Your task to perform on an android device: turn off location Image 0: 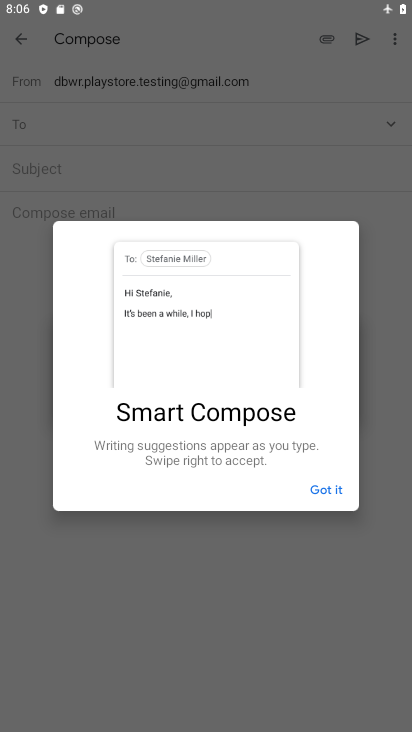
Step 0: press home button
Your task to perform on an android device: turn off location Image 1: 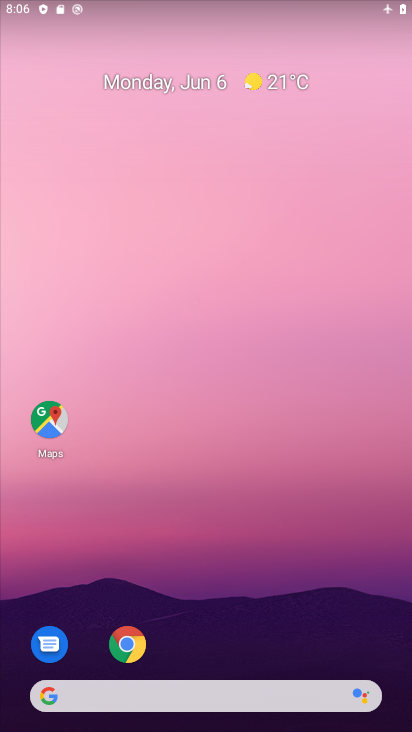
Step 1: drag from (225, 670) to (228, 58)
Your task to perform on an android device: turn off location Image 2: 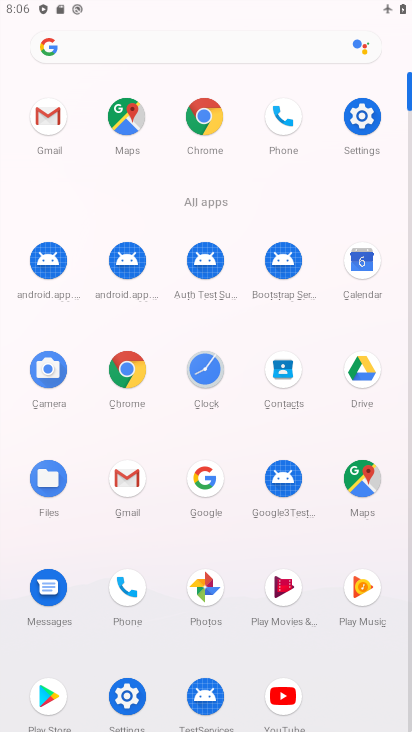
Step 2: click (365, 120)
Your task to perform on an android device: turn off location Image 3: 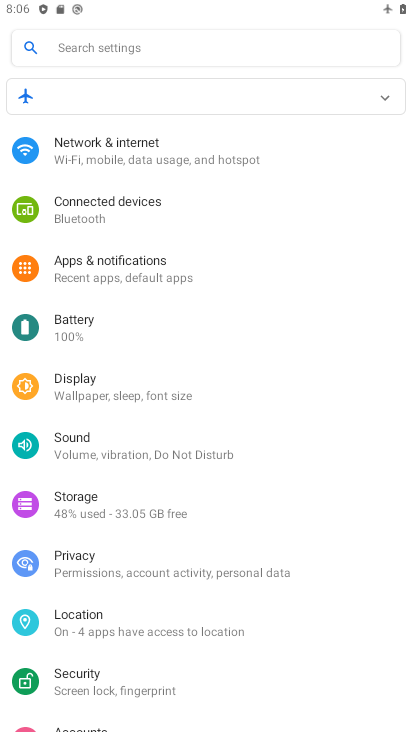
Step 3: click (86, 612)
Your task to perform on an android device: turn off location Image 4: 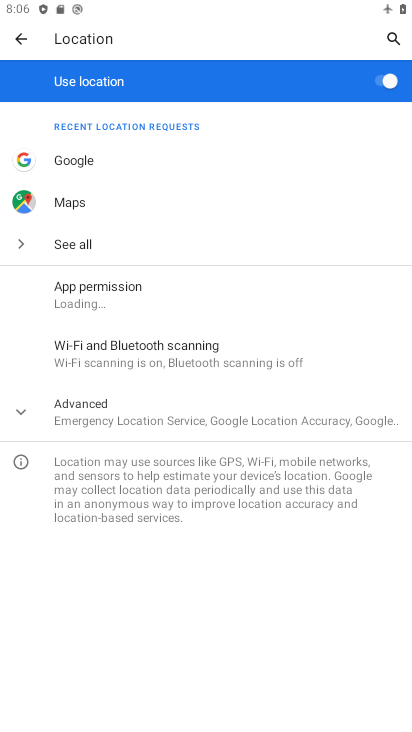
Step 4: click (382, 83)
Your task to perform on an android device: turn off location Image 5: 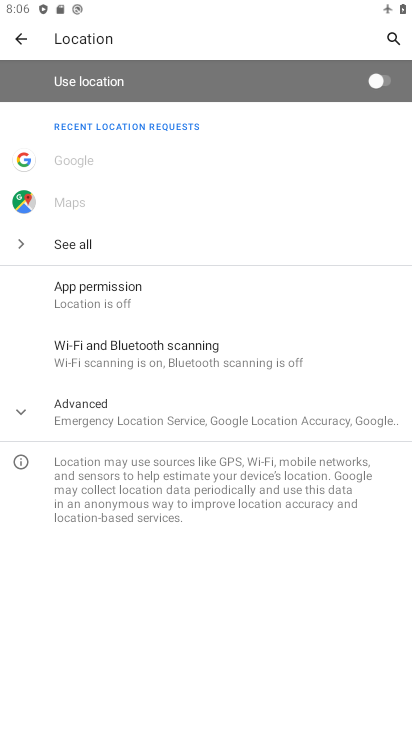
Step 5: task complete